Your task to perform on an android device: Open the stopwatch Image 0: 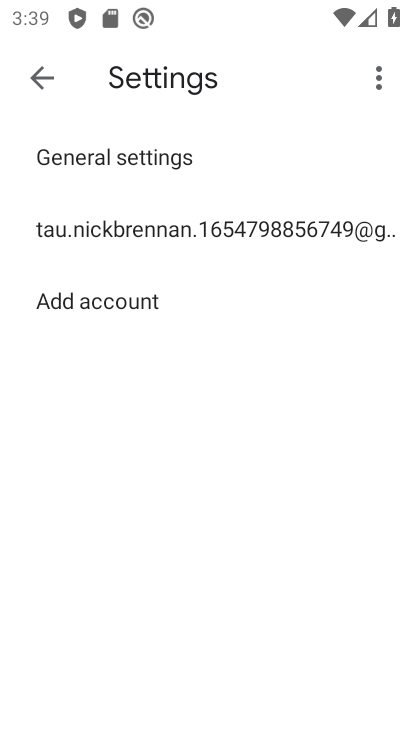
Step 0: press home button
Your task to perform on an android device: Open the stopwatch Image 1: 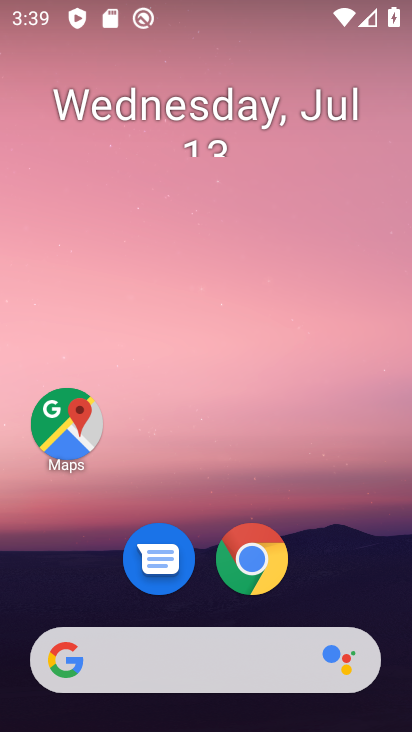
Step 1: drag from (223, 600) to (221, 304)
Your task to perform on an android device: Open the stopwatch Image 2: 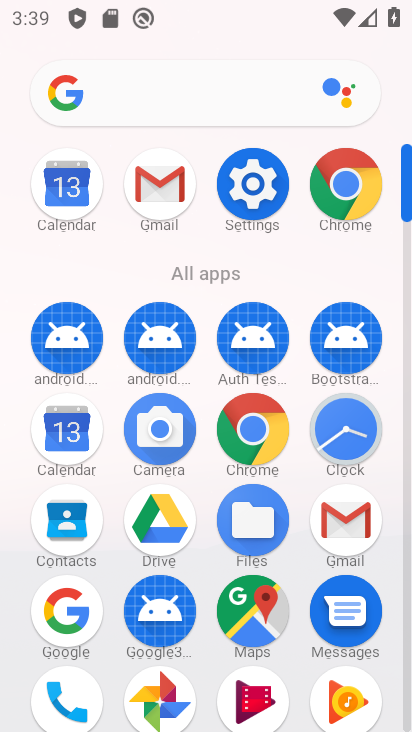
Step 2: click (337, 433)
Your task to perform on an android device: Open the stopwatch Image 3: 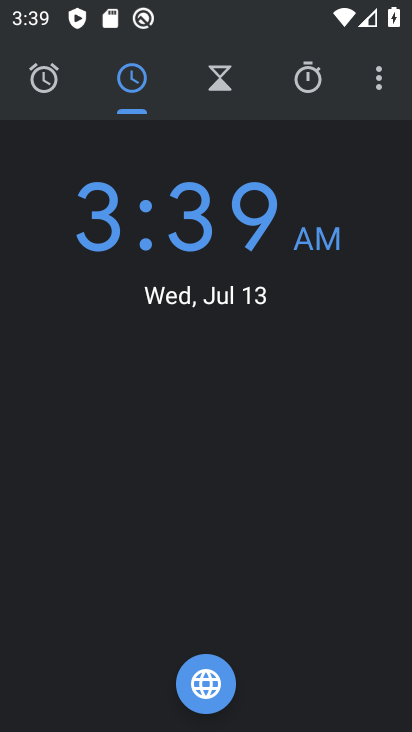
Step 3: click (310, 87)
Your task to perform on an android device: Open the stopwatch Image 4: 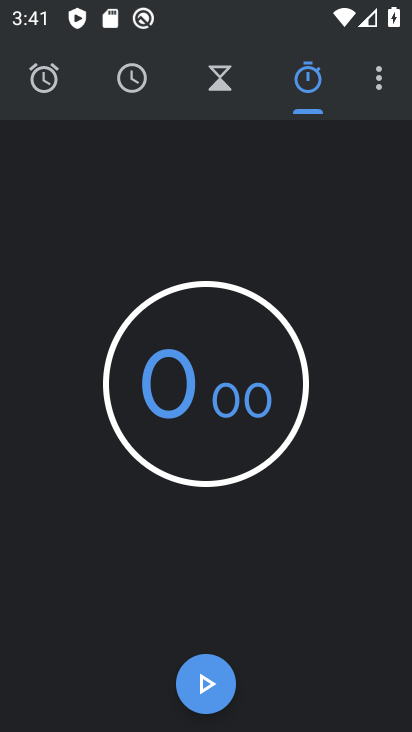
Step 4: task complete